Your task to perform on an android device: set the stopwatch Image 0: 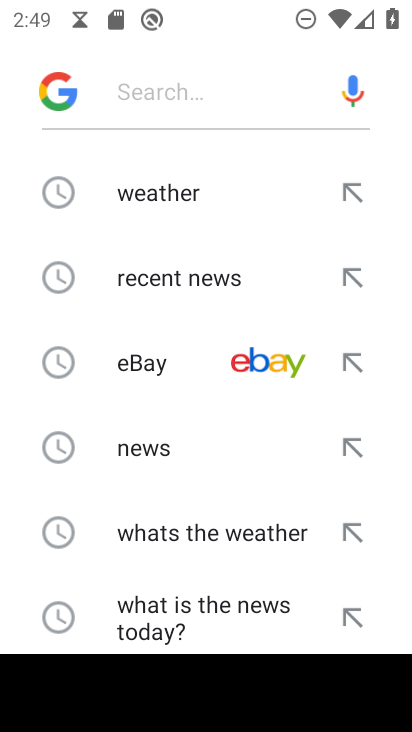
Step 0: press home button
Your task to perform on an android device: set the stopwatch Image 1: 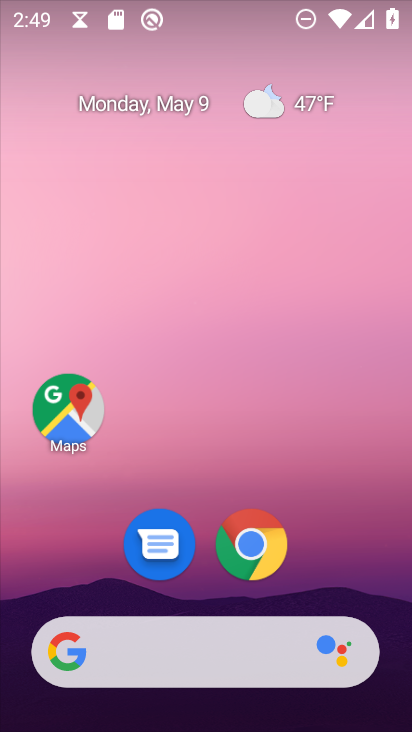
Step 1: drag from (341, 573) to (308, 205)
Your task to perform on an android device: set the stopwatch Image 2: 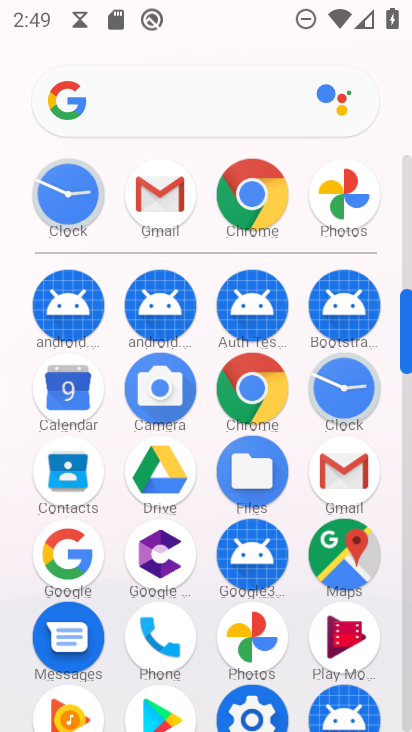
Step 2: click (344, 384)
Your task to perform on an android device: set the stopwatch Image 3: 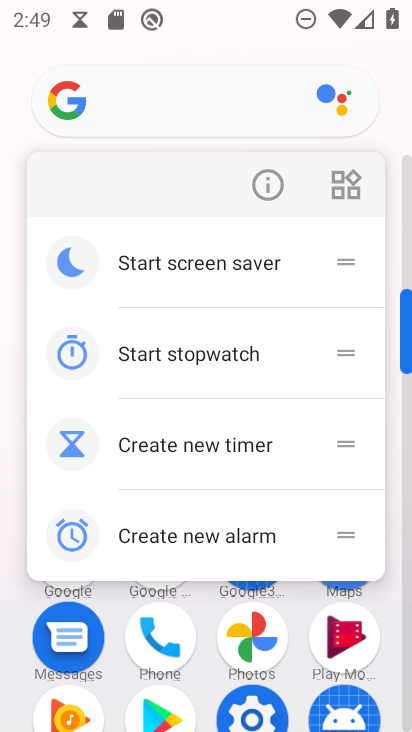
Step 3: press back button
Your task to perform on an android device: set the stopwatch Image 4: 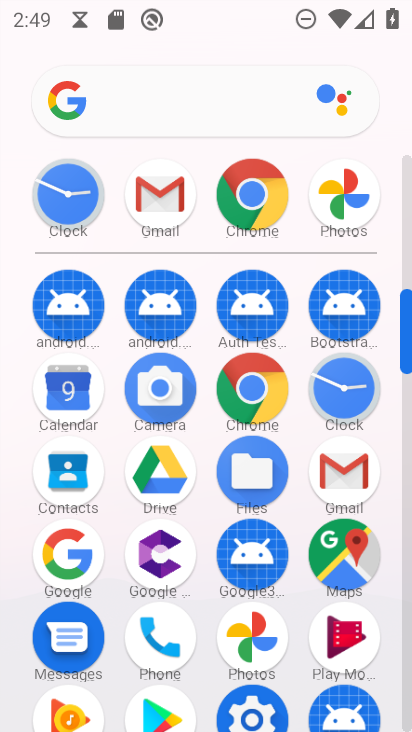
Step 4: click (330, 406)
Your task to perform on an android device: set the stopwatch Image 5: 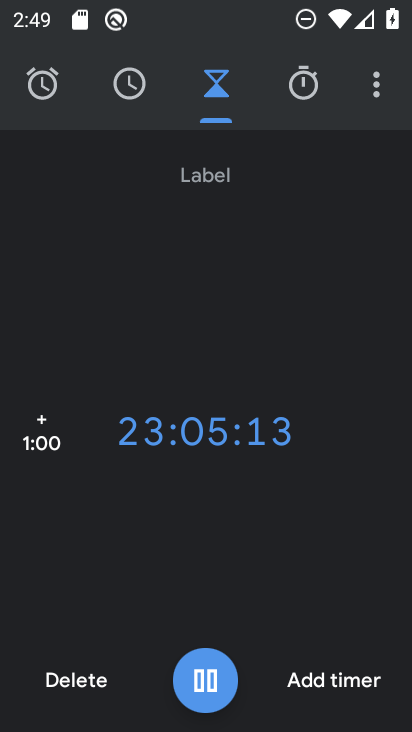
Step 5: click (324, 95)
Your task to perform on an android device: set the stopwatch Image 6: 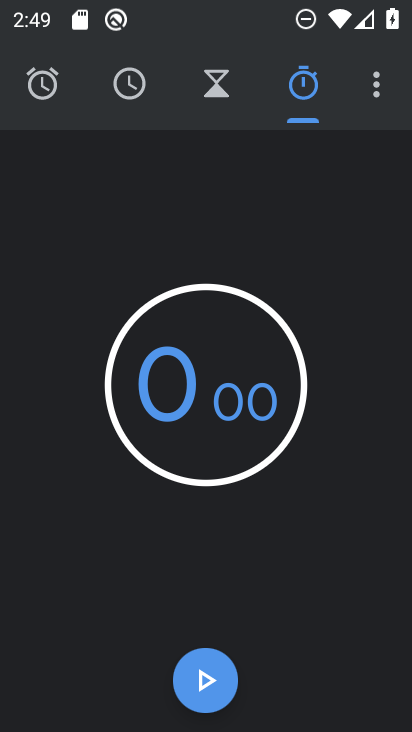
Step 6: click (220, 690)
Your task to perform on an android device: set the stopwatch Image 7: 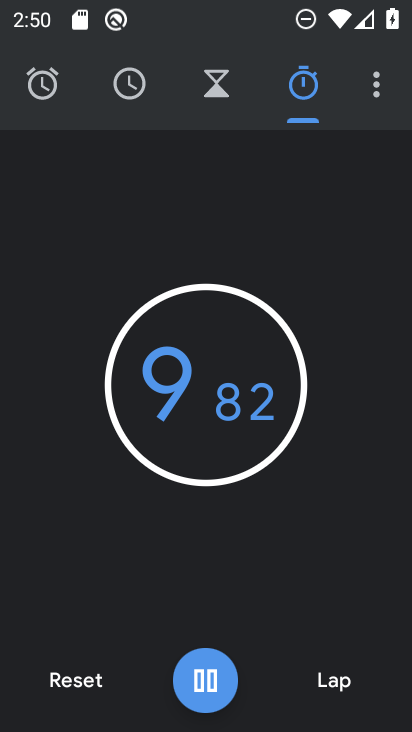
Step 7: task complete